Your task to perform on an android device: check battery use Image 0: 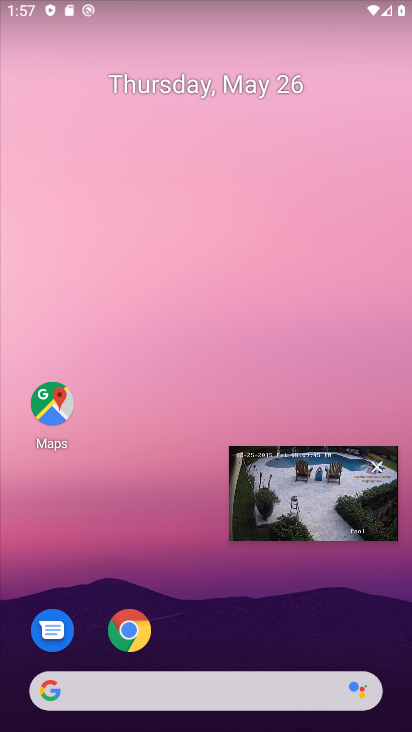
Step 0: click (379, 463)
Your task to perform on an android device: check battery use Image 1: 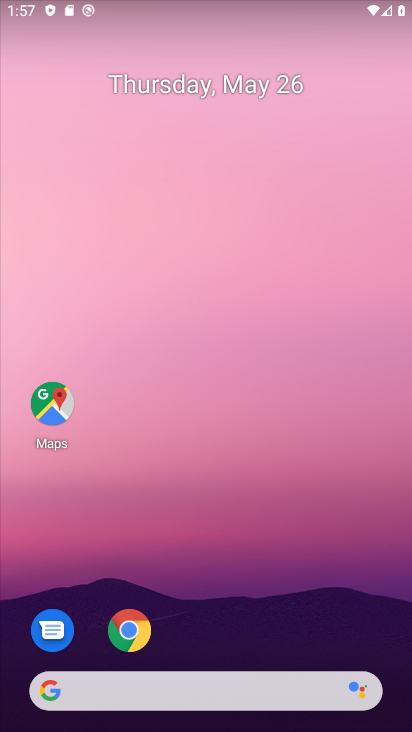
Step 1: drag from (261, 529) to (256, 132)
Your task to perform on an android device: check battery use Image 2: 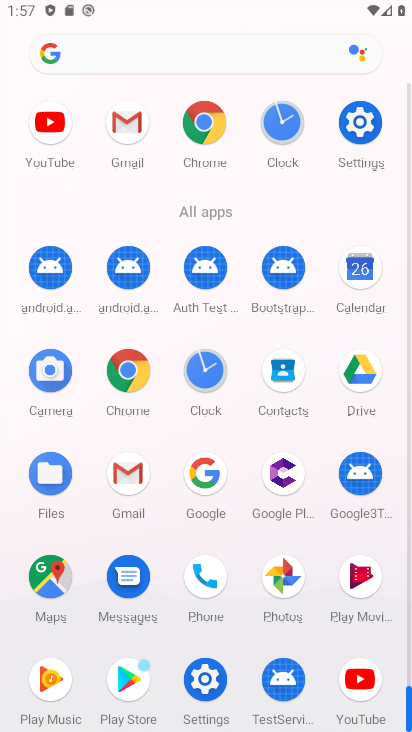
Step 2: click (369, 114)
Your task to perform on an android device: check battery use Image 3: 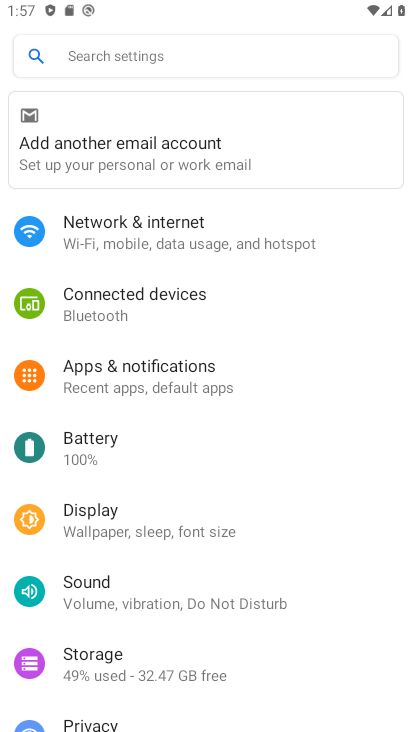
Step 3: click (149, 437)
Your task to perform on an android device: check battery use Image 4: 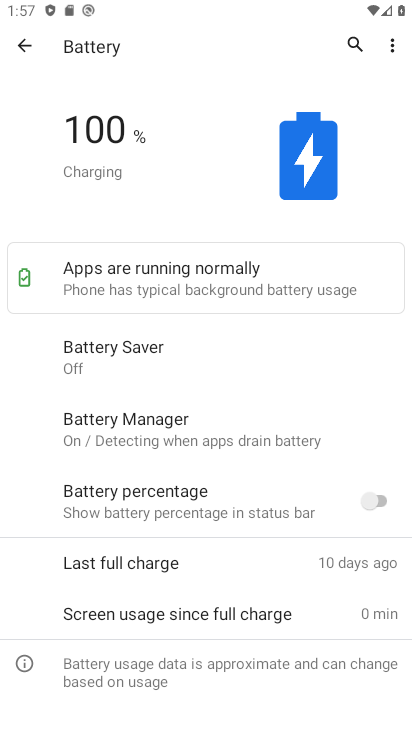
Step 4: task complete